Your task to perform on an android device: turn smart compose on in the gmail app Image 0: 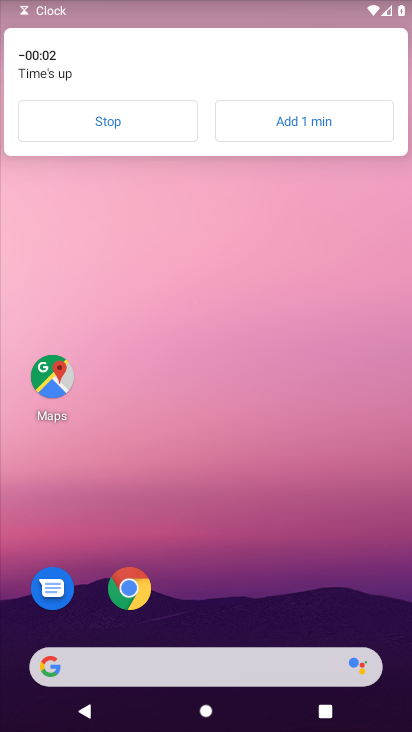
Step 0: click (126, 113)
Your task to perform on an android device: turn smart compose on in the gmail app Image 1: 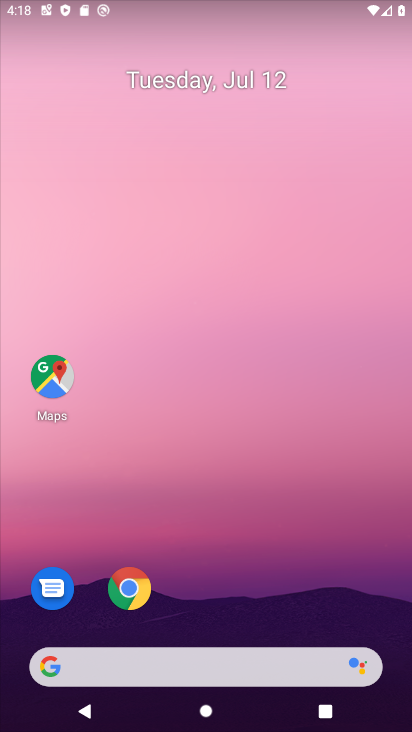
Step 1: drag from (199, 614) to (233, 100)
Your task to perform on an android device: turn smart compose on in the gmail app Image 2: 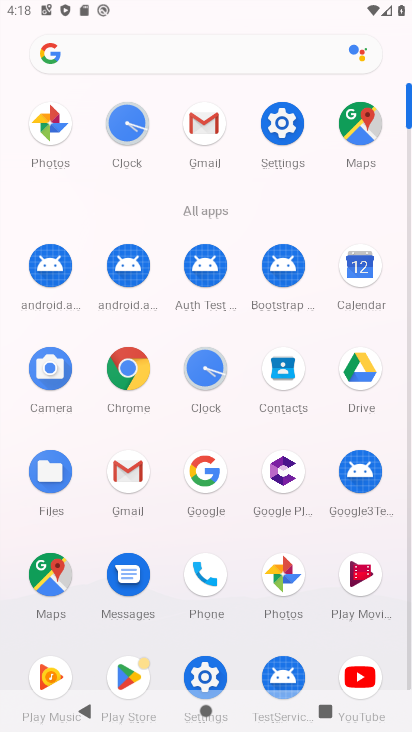
Step 2: click (212, 121)
Your task to perform on an android device: turn smart compose on in the gmail app Image 3: 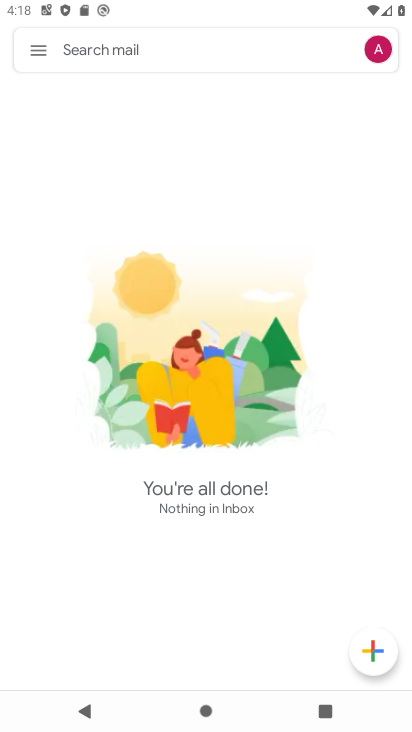
Step 3: click (41, 48)
Your task to perform on an android device: turn smart compose on in the gmail app Image 4: 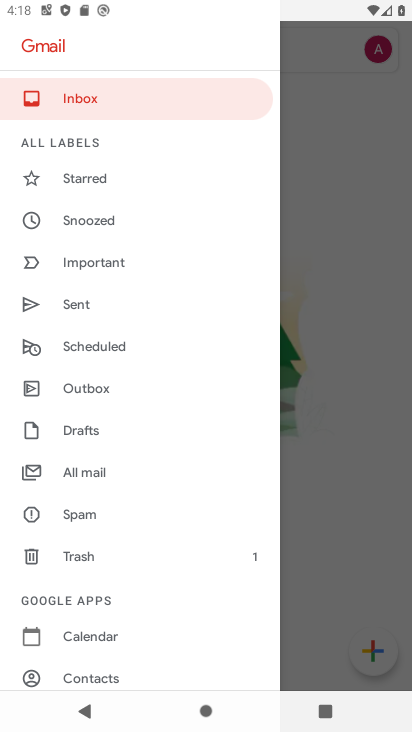
Step 4: drag from (132, 602) to (164, 344)
Your task to perform on an android device: turn smart compose on in the gmail app Image 5: 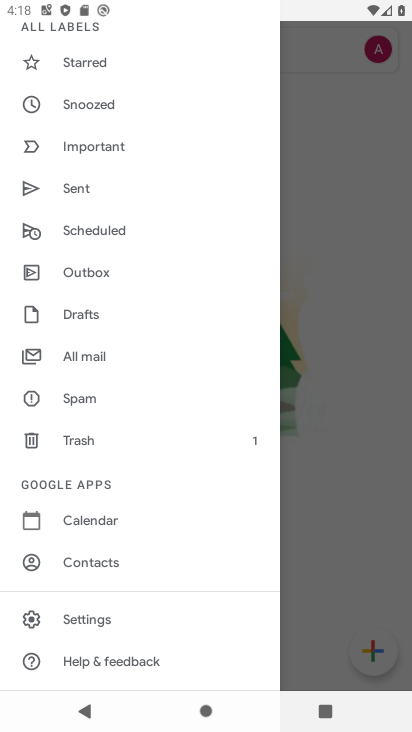
Step 5: click (90, 618)
Your task to perform on an android device: turn smart compose on in the gmail app Image 6: 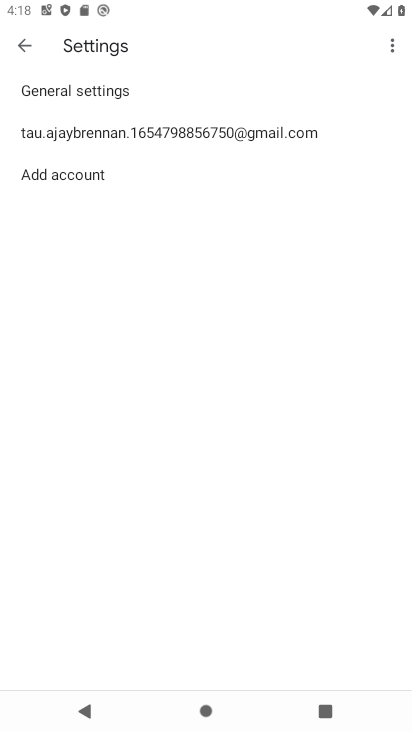
Step 6: click (114, 134)
Your task to perform on an android device: turn smart compose on in the gmail app Image 7: 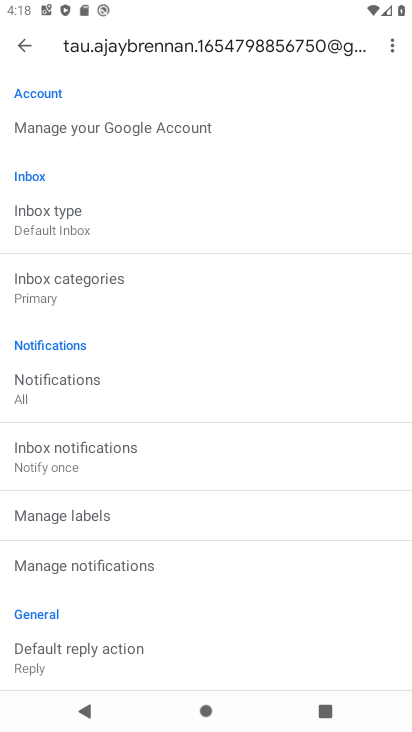
Step 7: task complete